Your task to perform on an android device: open app "NewsBreak: Local News & Alerts" Image 0: 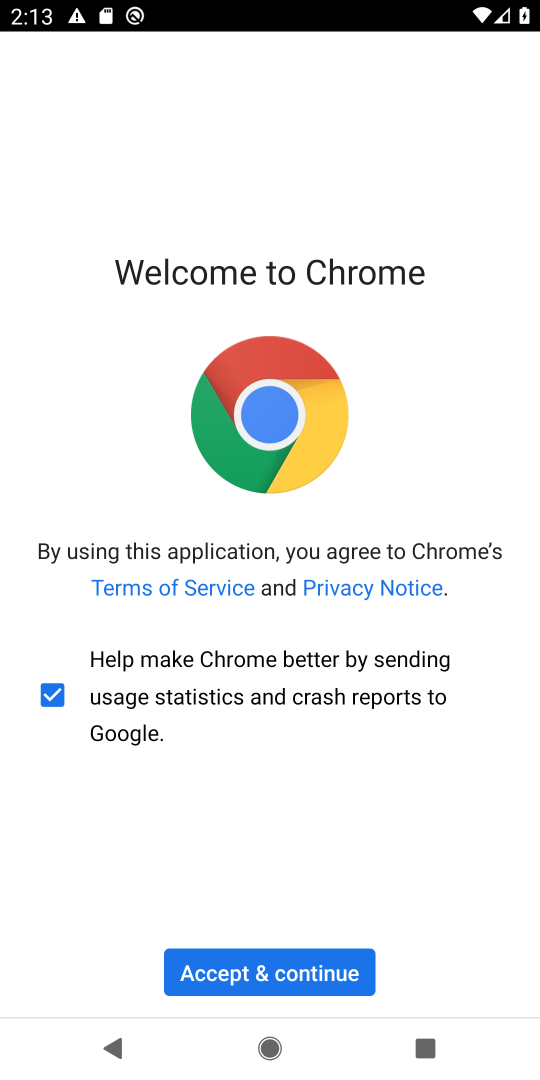
Step 0: press home button
Your task to perform on an android device: open app "NewsBreak: Local News & Alerts" Image 1: 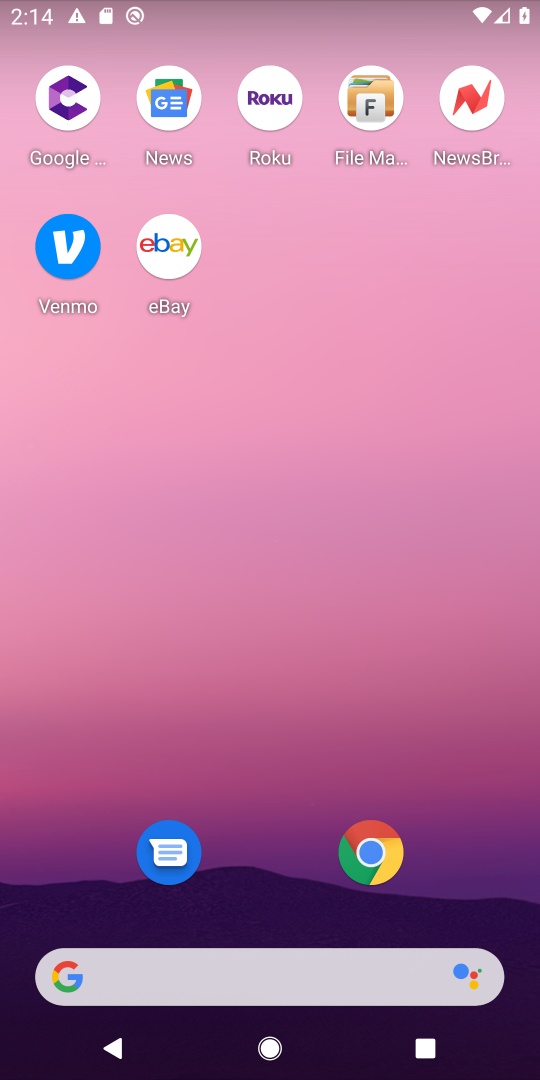
Step 1: drag from (263, 854) to (263, 117)
Your task to perform on an android device: open app "NewsBreak: Local News & Alerts" Image 2: 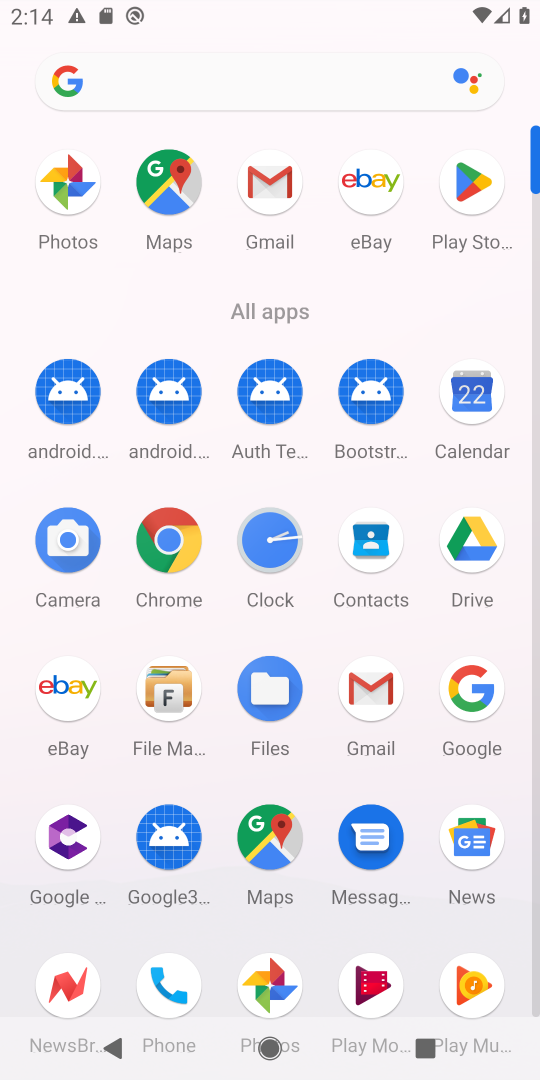
Step 2: click (70, 985)
Your task to perform on an android device: open app "NewsBreak: Local News & Alerts" Image 3: 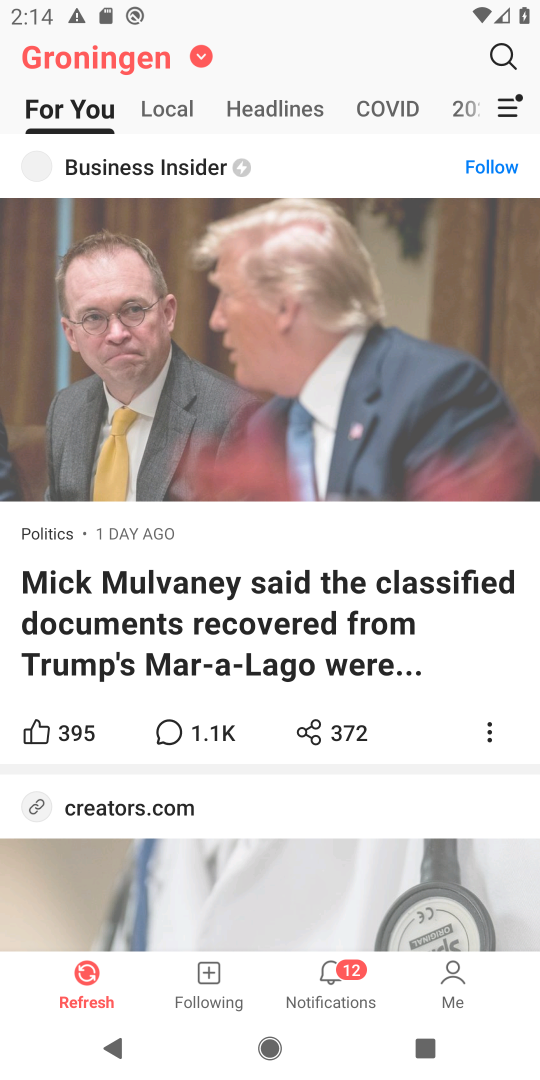
Step 3: task complete